Your task to perform on an android device: Toggle the flashlight Image 0: 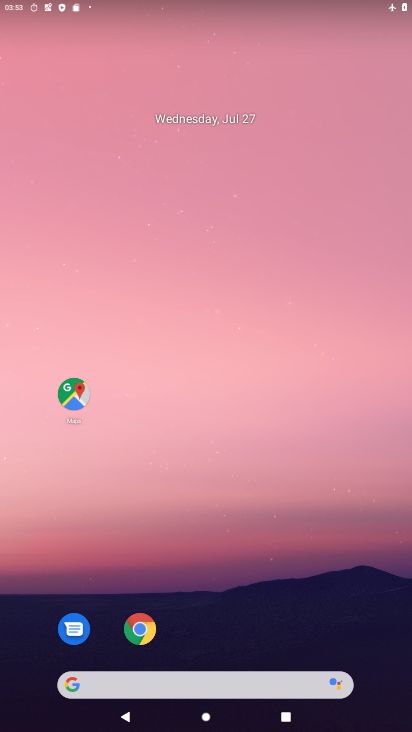
Step 0: drag from (307, 597) to (274, 26)
Your task to perform on an android device: Toggle the flashlight Image 1: 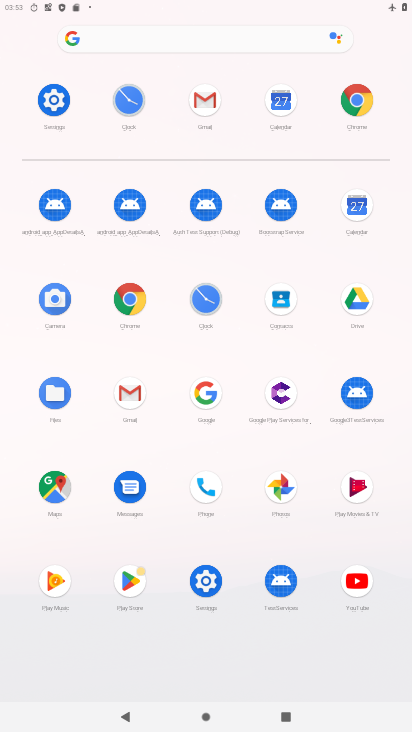
Step 1: click (49, 103)
Your task to perform on an android device: Toggle the flashlight Image 2: 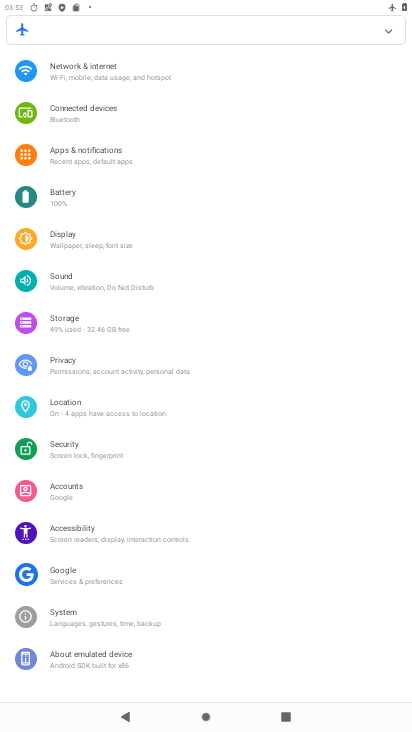
Step 2: click (95, 240)
Your task to perform on an android device: Toggle the flashlight Image 3: 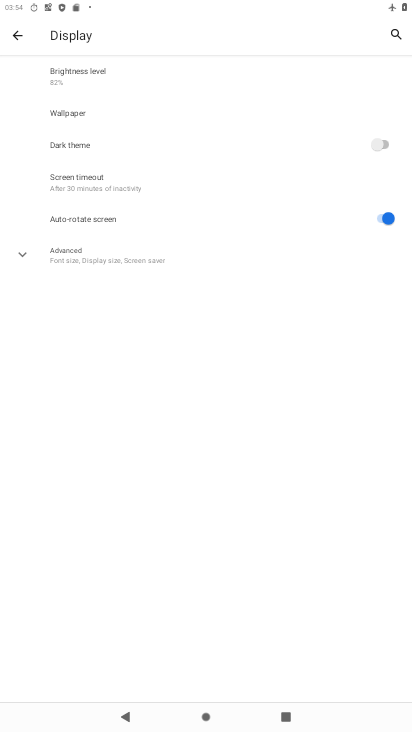
Step 3: click (99, 179)
Your task to perform on an android device: Toggle the flashlight Image 4: 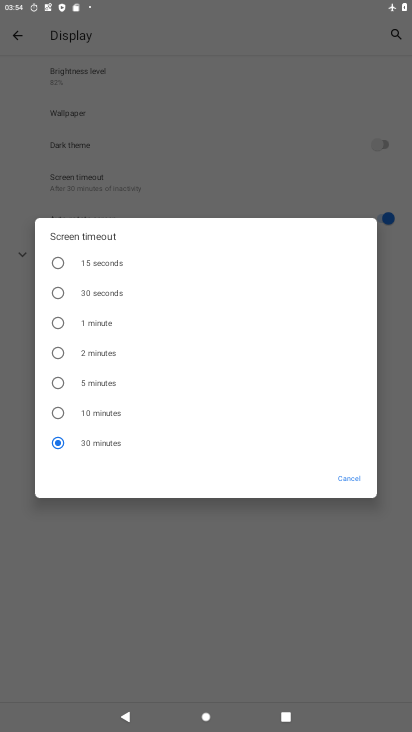
Step 4: task complete